Your task to perform on an android device: turn off notifications in google photos Image 0: 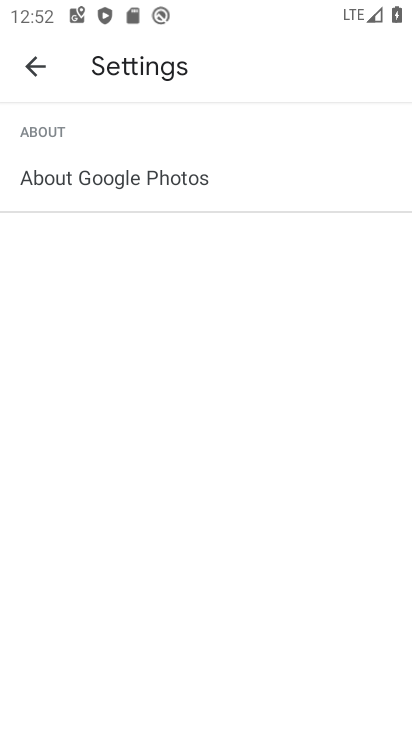
Step 0: press home button
Your task to perform on an android device: turn off notifications in google photos Image 1: 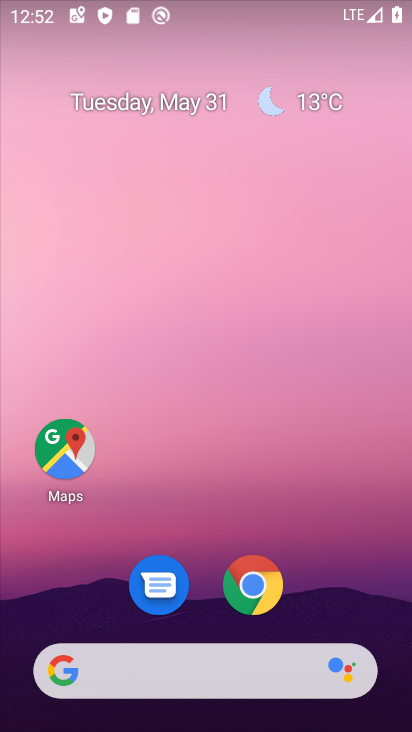
Step 1: drag from (284, 496) to (272, 19)
Your task to perform on an android device: turn off notifications in google photos Image 2: 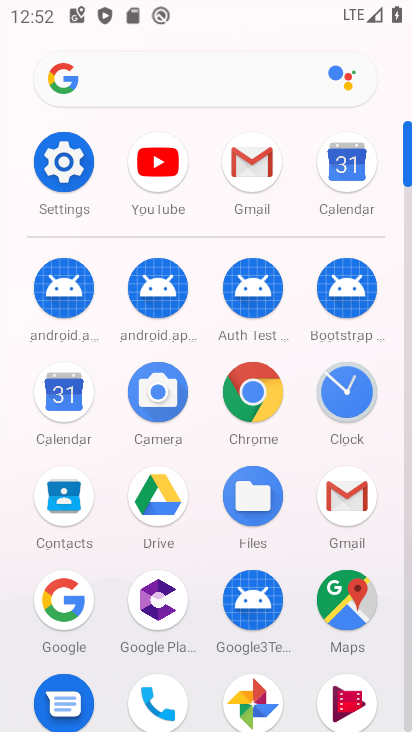
Step 2: click (76, 157)
Your task to perform on an android device: turn off notifications in google photos Image 3: 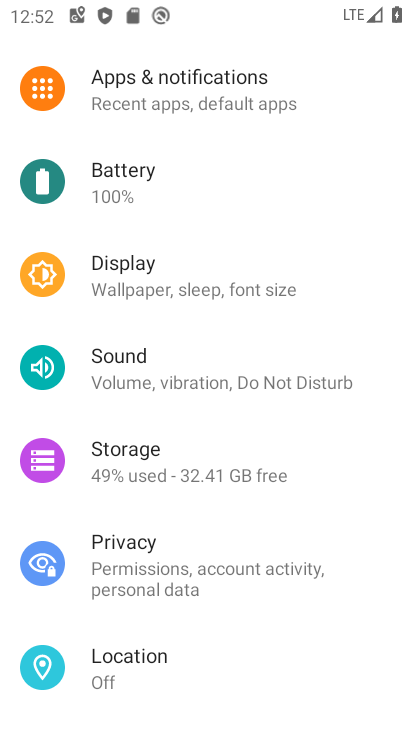
Step 3: click (222, 102)
Your task to perform on an android device: turn off notifications in google photos Image 4: 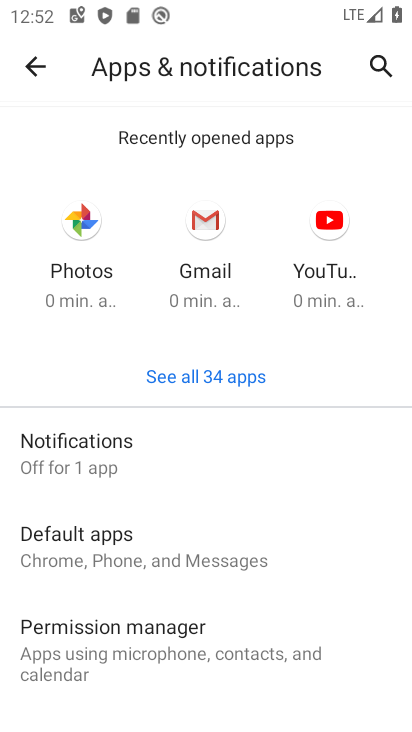
Step 4: click (83, 242)
Your task to perform on an android device: turn off notifications in google photos Image 5: 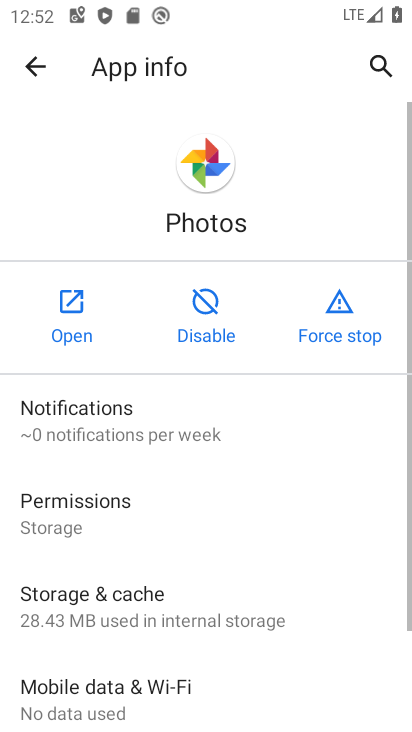
Step 5: click (176, 426)
Your task to perform on an android device: turn off notifications in google photos Image 6: 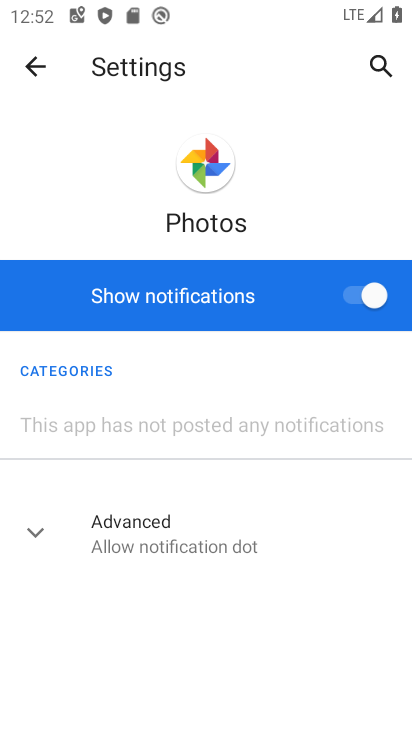
Step 6: click (348, 294)
Your task to perform on an android device: turn off notifications in google photos Image 7: 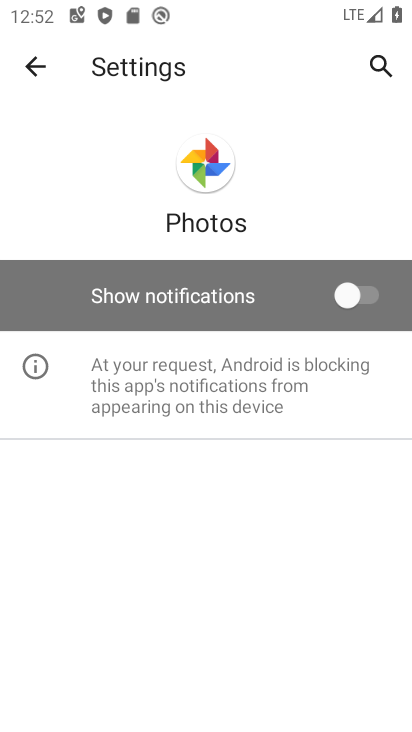
Step 7: task complete